Your task to perform on an android device: turn on airplane mode Image 0: 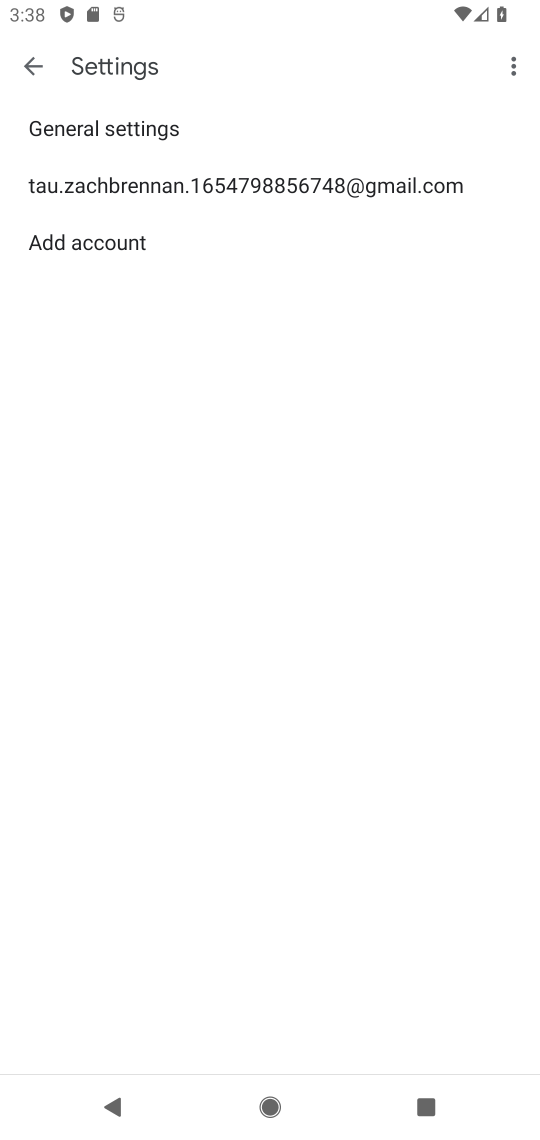
Step 0: press home button
Your task to perform on an android device: turn on airplane mode Image 1: 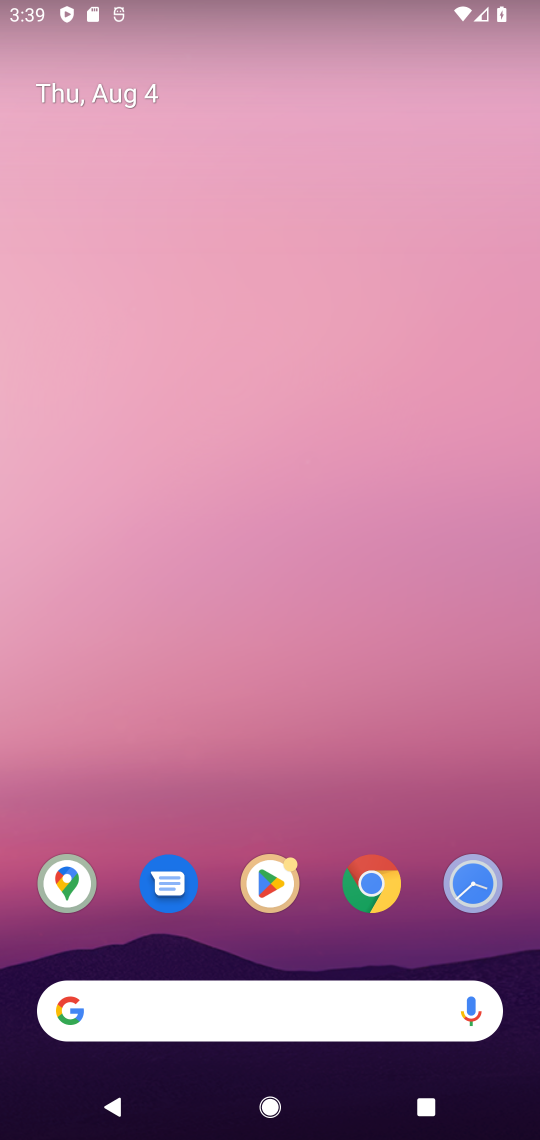
Step 1: drag from (487, 817) to (217, 195)
Your task to perform on an android device: turn on airplane mode Image 2: 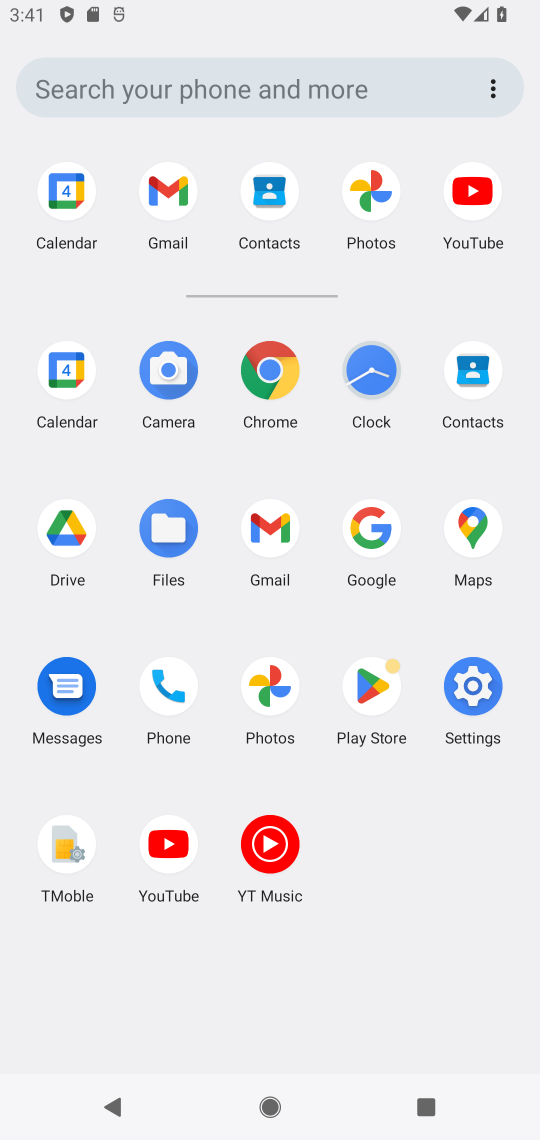
Step 2: drag from (294, 7) to (352, 758)
Your task to perform on an android device: turn on airplane mode Image 3: 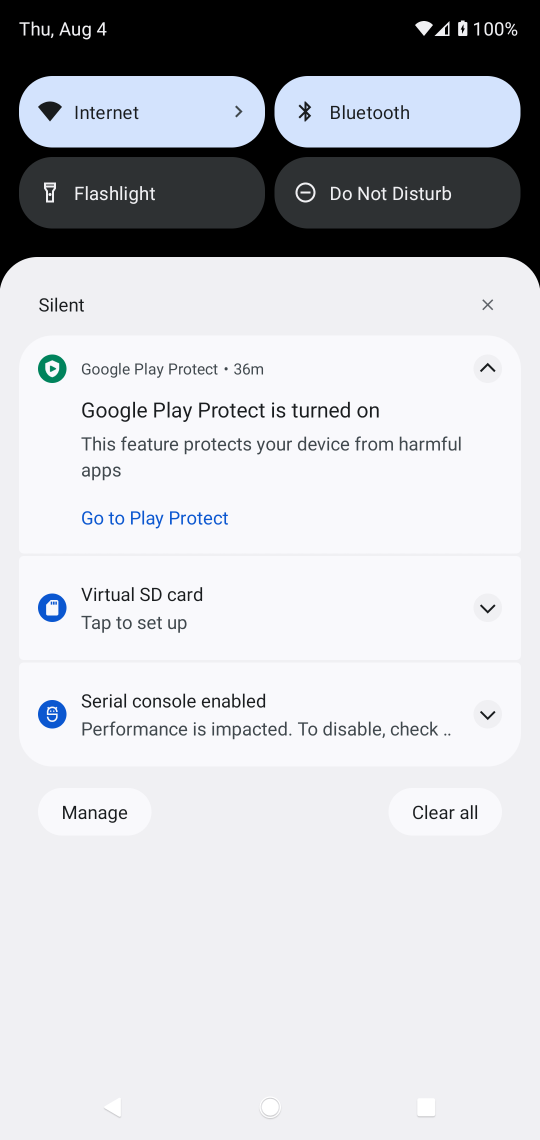
Step 3: drag from (269, 242) to (305, 896)
Your task to perform on an android device: turn on airplane mode Image 4: 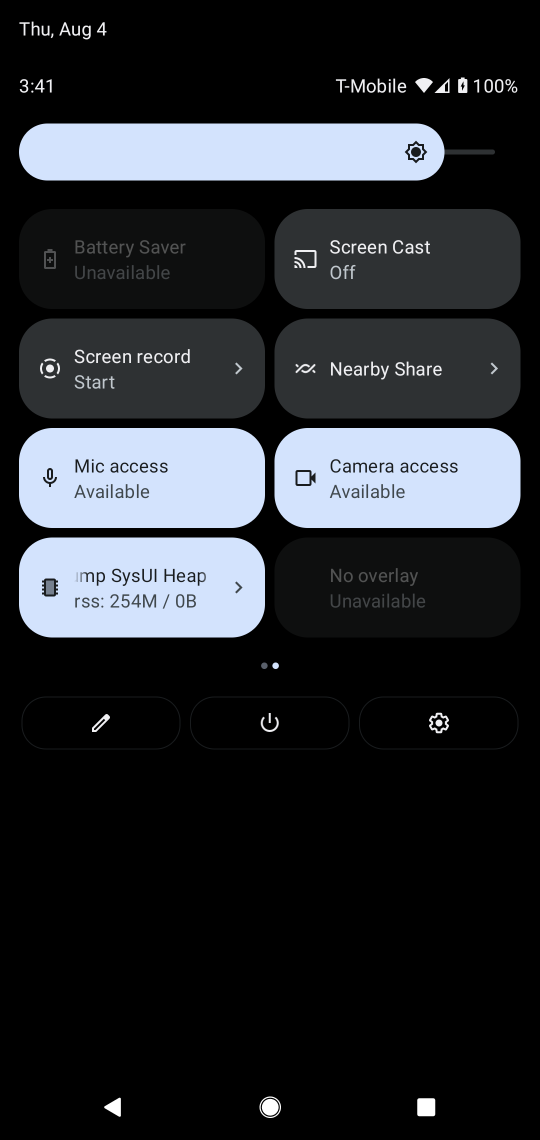
Step 4: drag from (67, 406) to (502, 491)
Your task to perform on an android device: turn on airplane mode Image 5: 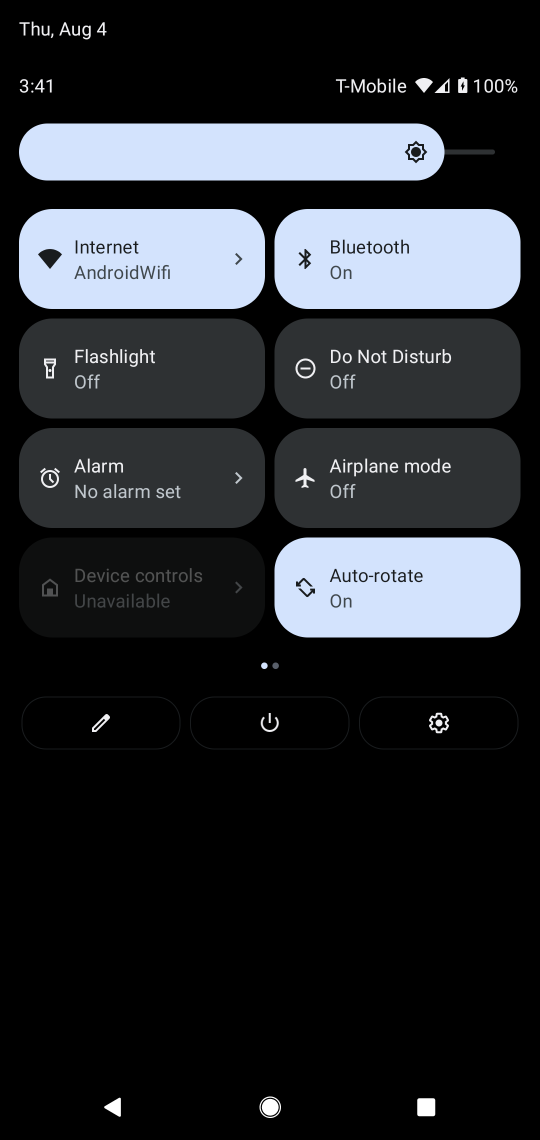
Step 5: click (398, 484)
Your task to perform on an android device: turn on airplane mode Image 6: 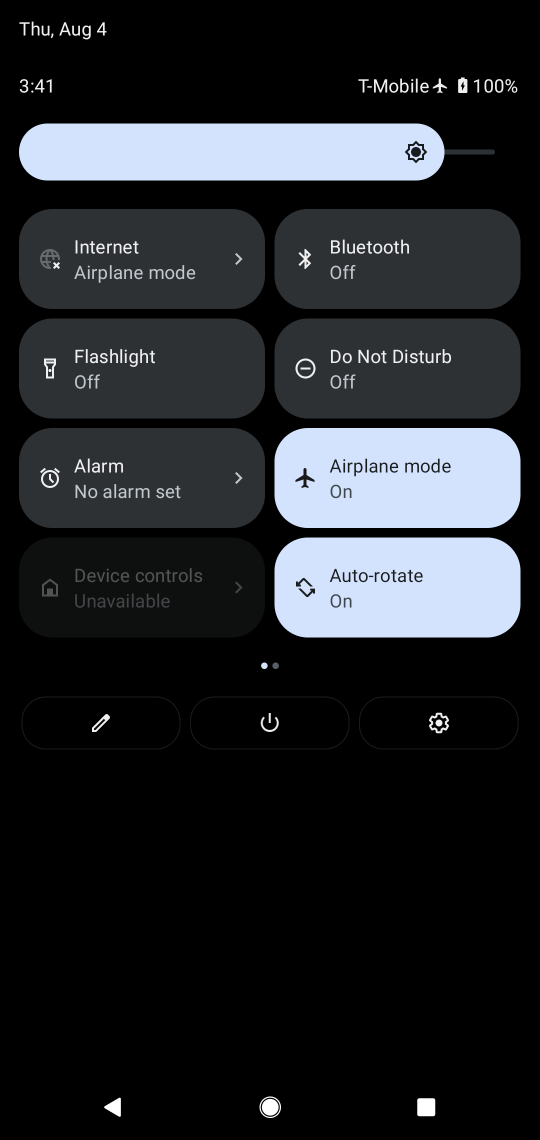
Step 6: task complete